Your task to perform on an android device: change the clock display to show seconds Image 0: 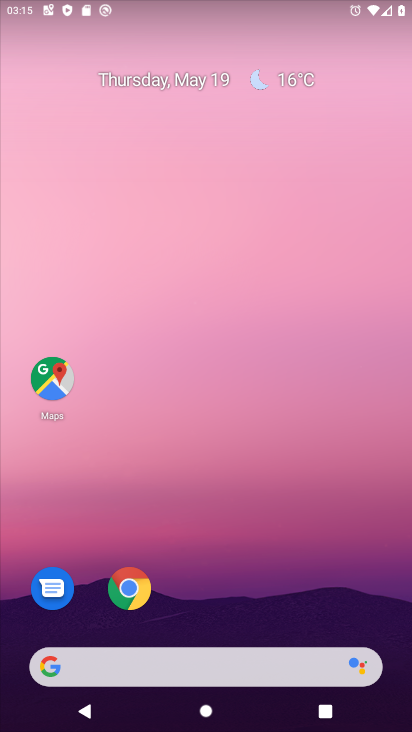
Step 0: drag from (291, 562) to (293, 108)
Your task to perform on an android device: change the clock display to show seconds Image 1: 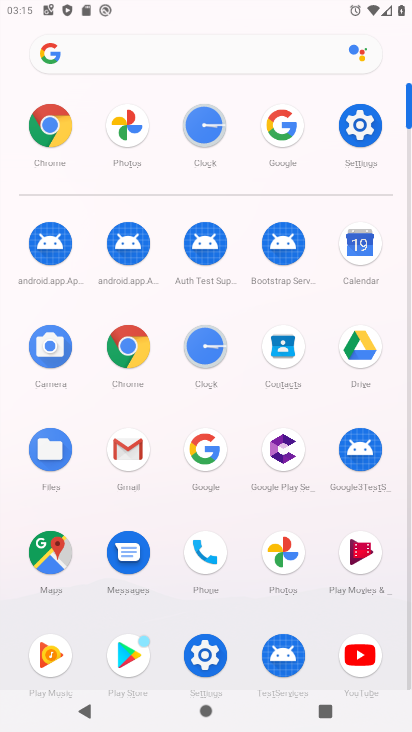
Step 1: click (207, 124)
Your task to perform on an android device: change the clock display to show seconds Image 2: 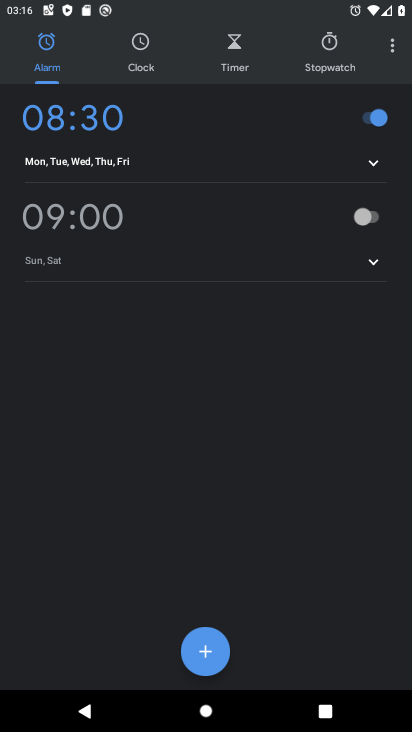
Step 2: click (388, 40)
Your task to perform on an android device: change the clock display to show seconds Image 3: 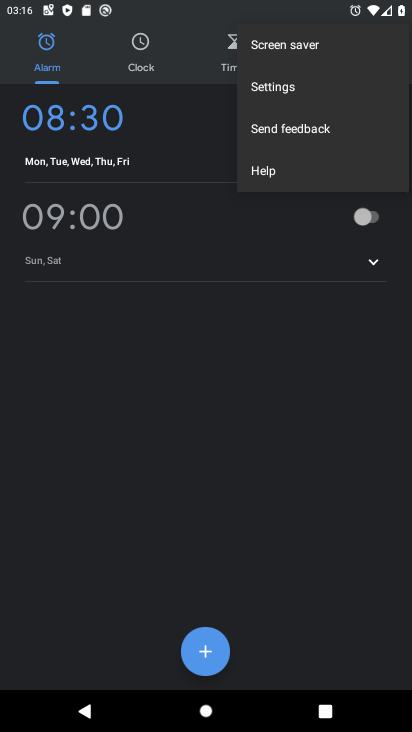
Step 3: click (315, 91)
Your task to perform on an android device: change the clock display to show seconds Image 4: 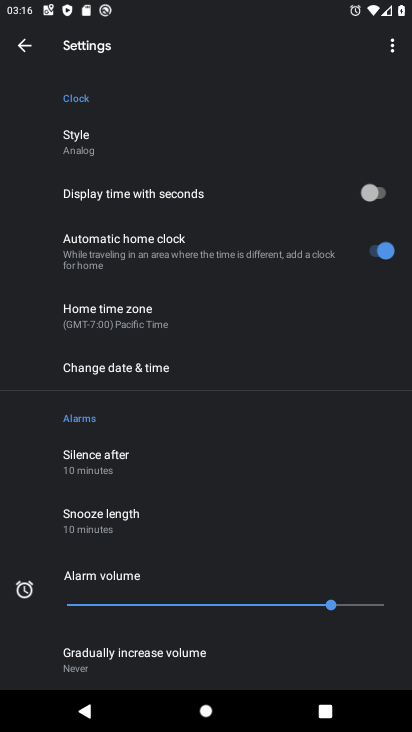
Step 4: click (364, 193)
Your task to perform on an android device: change the clock display to show seconds Image 5: 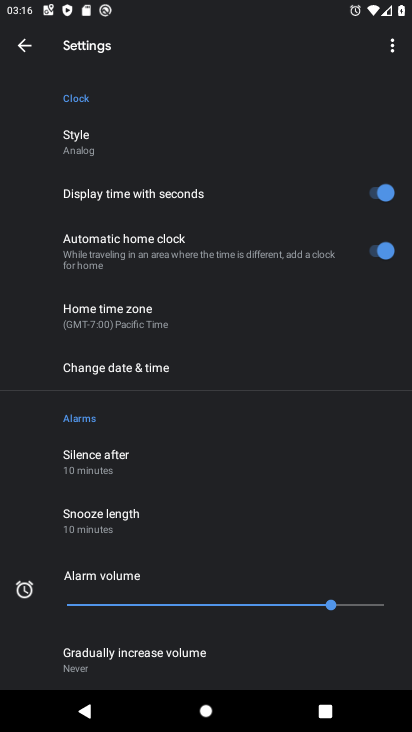
Step 5: task complete